Your task to perform on an android device: toggle notifications settings in the gmail app Image 0: 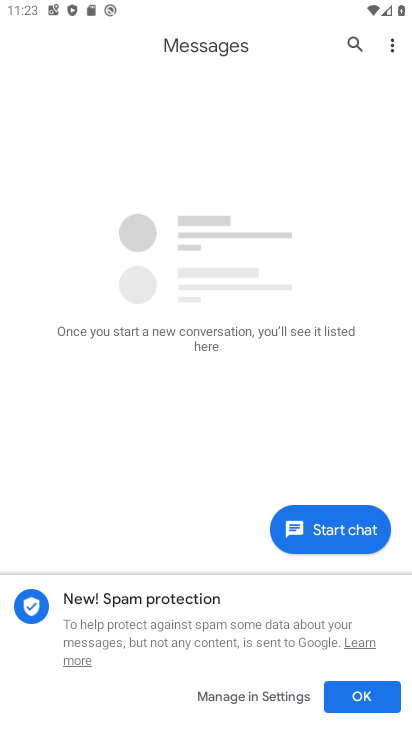
Step 0: press home button
Your task to perform on an android device: toggle notifications settings in the gmail app Image 1: 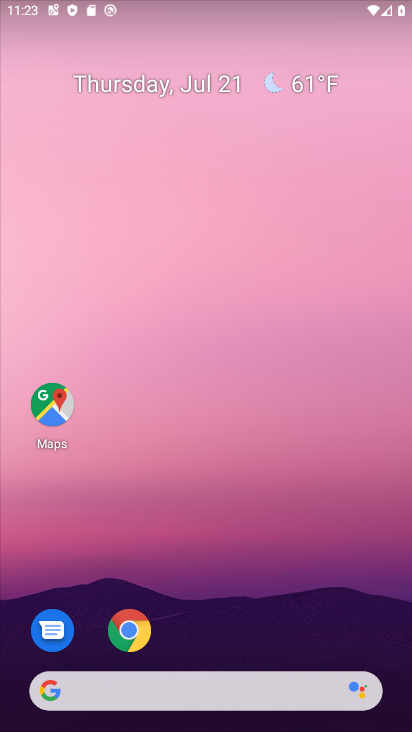
Step 1: drag from (156, 669) to (104, 284)
Your task to perform on an android device: toggle notifications settings in the gmail app Image 2: 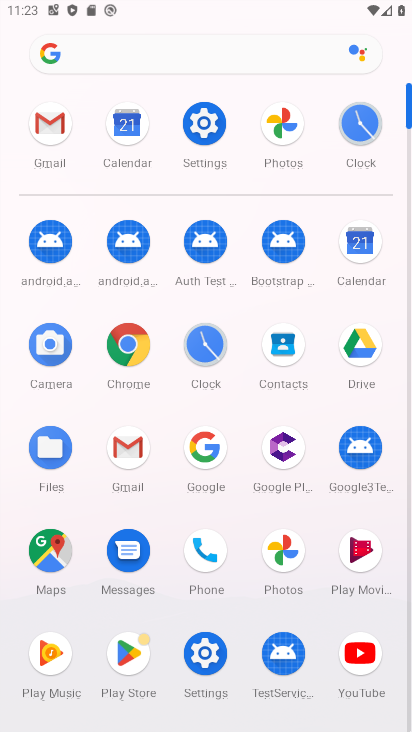
Step 2: click (127, 452)
Your task to perform on an android device: toggle notifications settings in the gmail app Image 3: 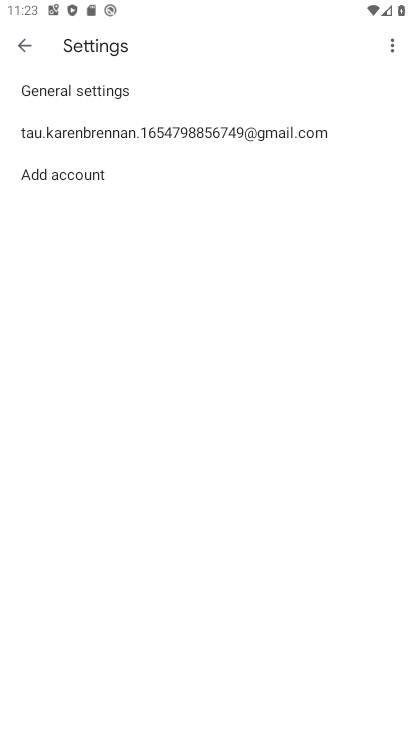
Step 3: click (76, 133)
Your task to perform on an android device: toggle notifications settings in the gmail app Image 4: 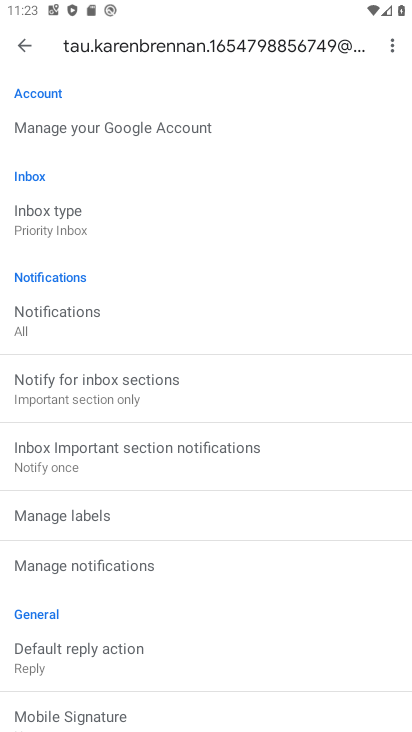
Step 4: click (61, 567)
Your task to perform on an android device: toggle notifications settings in the gmail app Image 5: 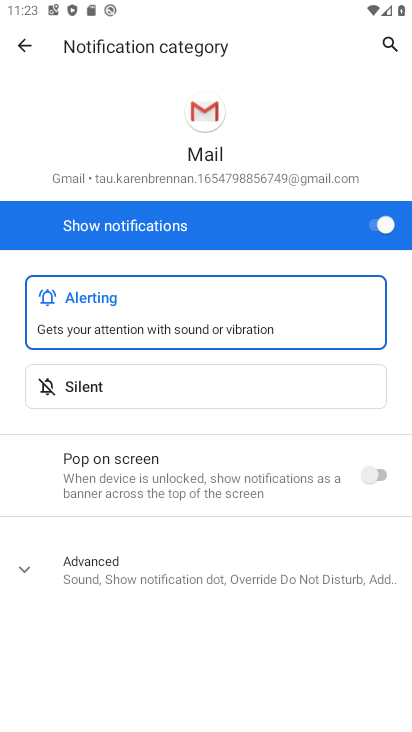
Step 5: click (381, 238)
Your task to perform on an android device: toggle notifications settings in the gmail app Image 6: 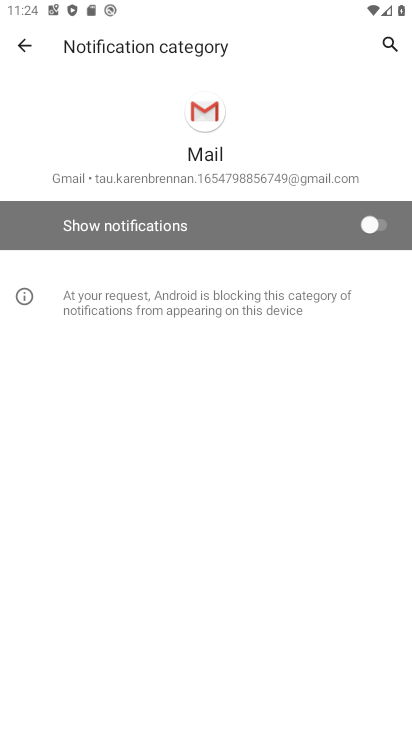
Step 6: task complete